Your task to perform on an android device: Open Google Chrome and open the bookmarks view Image 0: 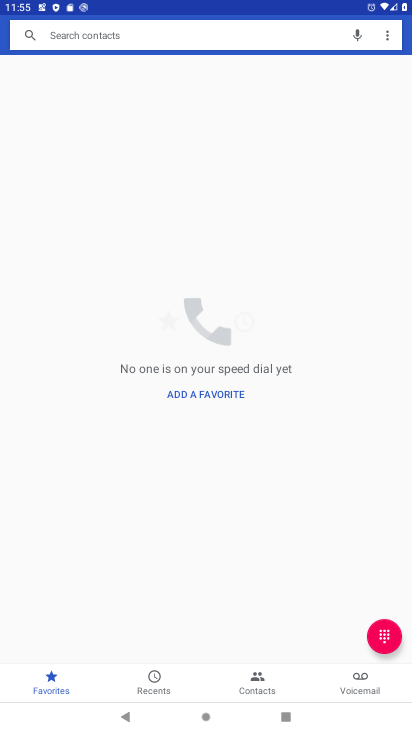
Step 0: press home button
Your task to perform on an android device: Open Google Chrome and open the bookmarks view Image 1: 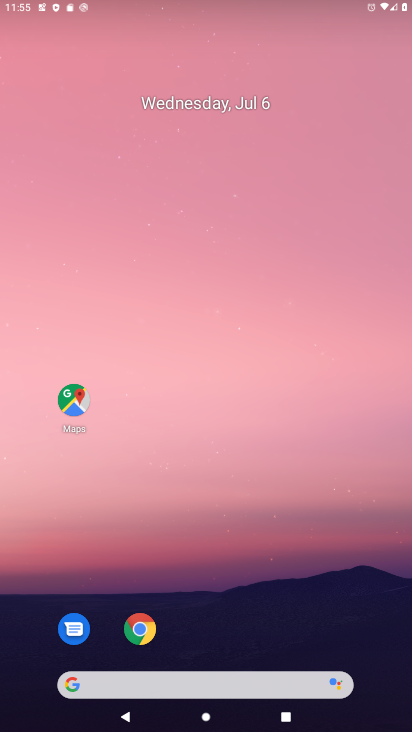
Step 1: click (131, 616)
Your task to perform on an android device: Open Google Chrome and open the bookmarks view Image 2: 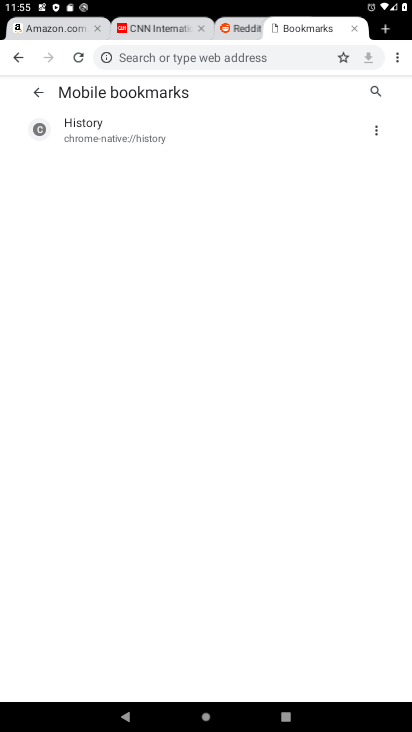
Step 2: click (395, 51)
Your task to perform on an android device: Open Google Chrome and open the bookmarks view Image 3: 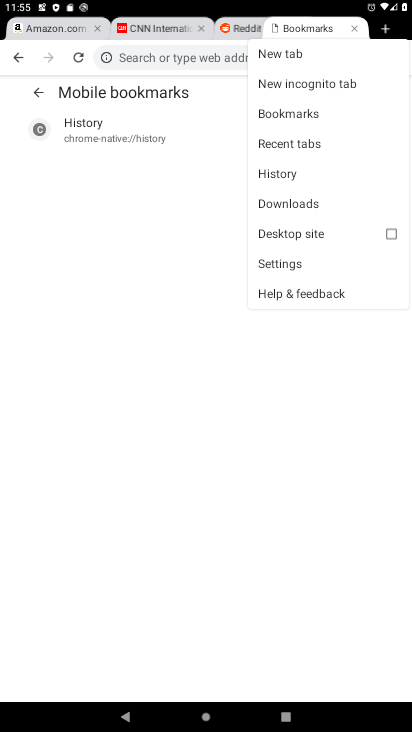
Step 3: click (325, 112)
Your task to perform on an android device: Open Google Chrome and open the bookmarks view Image 4: 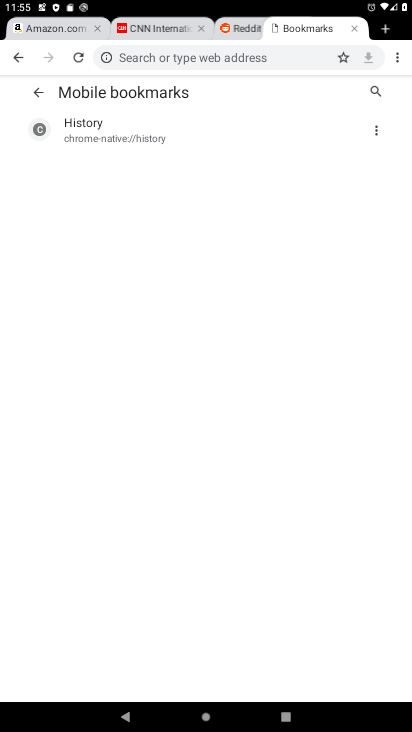
Step 4: task complete